Your task to perform on an android device: check google app version Image 0: 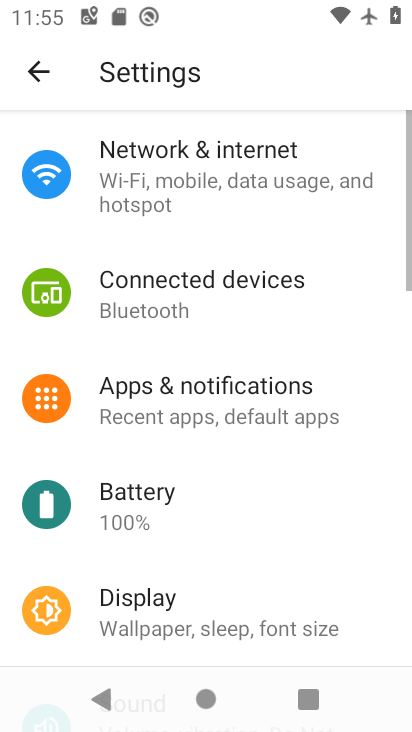
Step 0: press back button
Your task to perform on an android device: check google app version Image 1: 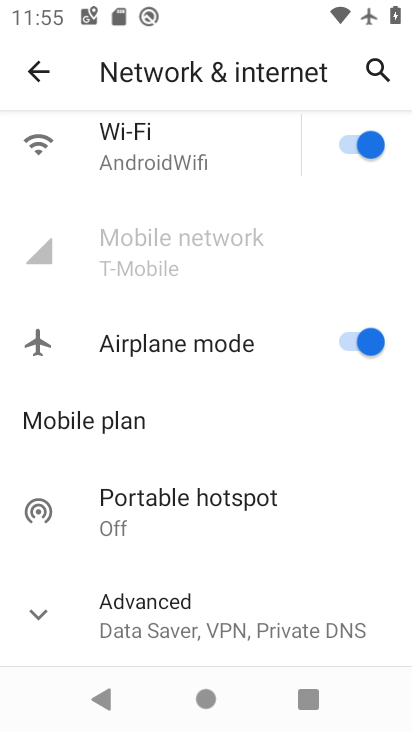
Step 1: click (44, 73)
Your task to perform on an android device: check google app version Image 2: 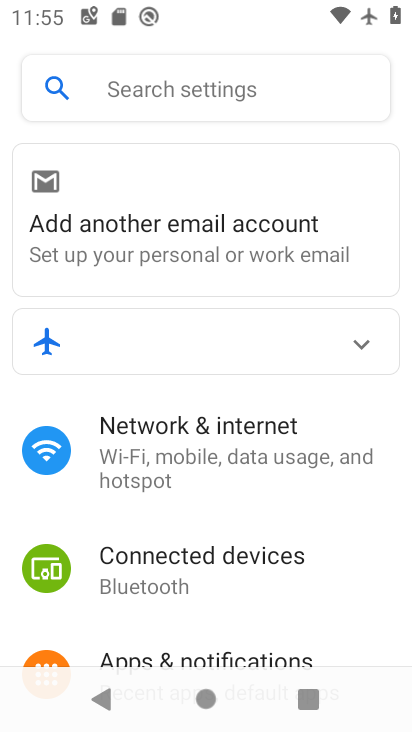
Step 2: press back button
Your task to perform on an android device: check google app version Image 3: 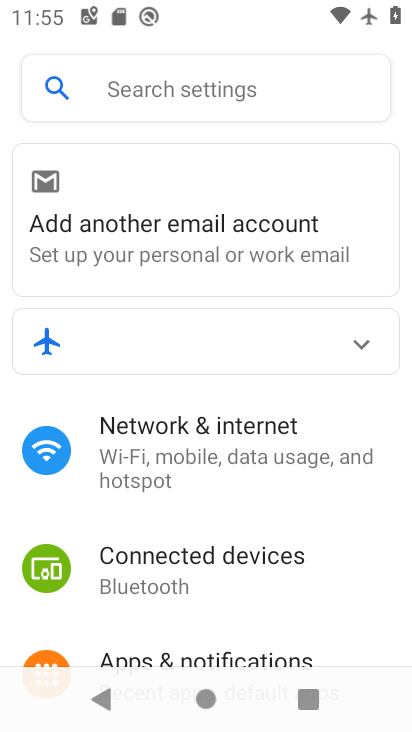
Step 3: press back button
Your task to perform on an android device: check google app version Image 4: 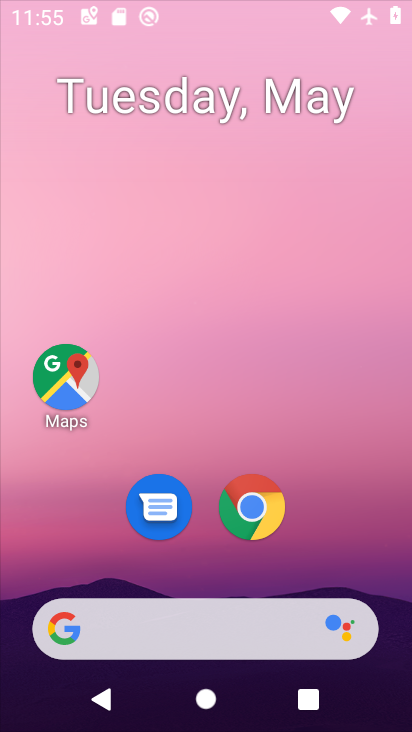
Step 4: press back button
Your task to perform on an android device: check google app version Image 5: 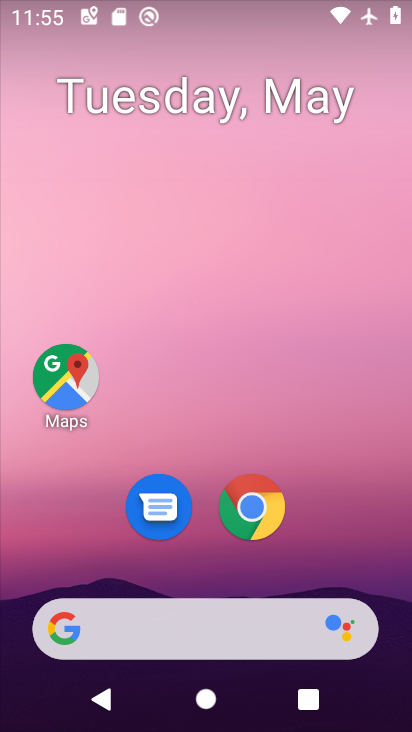
Step 5: drag from (244, 636) to (233, 71)
Your task to perform on an android device: check google app version Image 6: 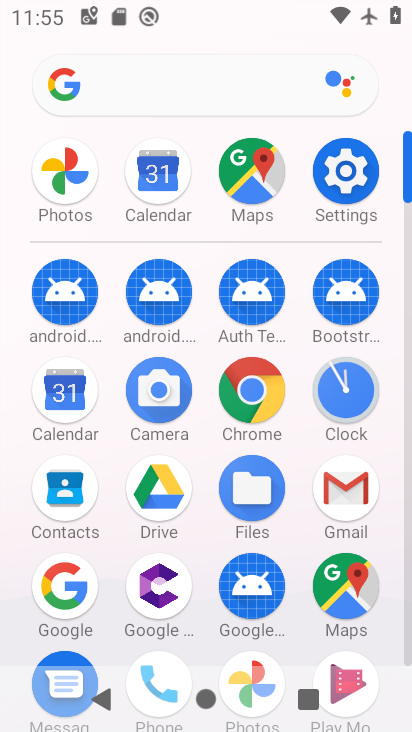
Step 6: click (71, 579)
Your task to perform on an android device: check google app version Image 7: 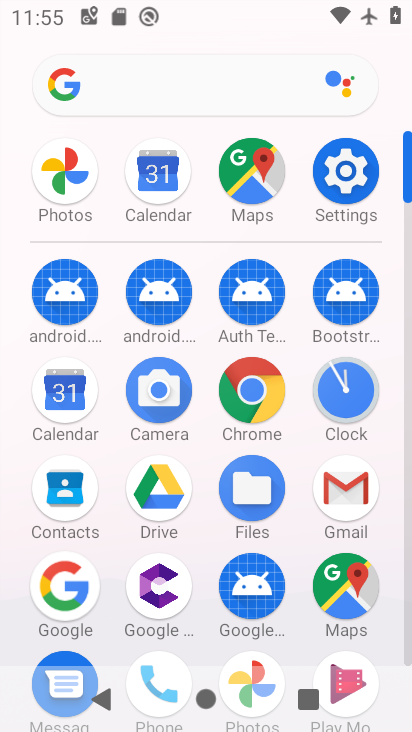
Step 7: click (71, 580)
Your task to perform on an android device: check google app version Image 8: 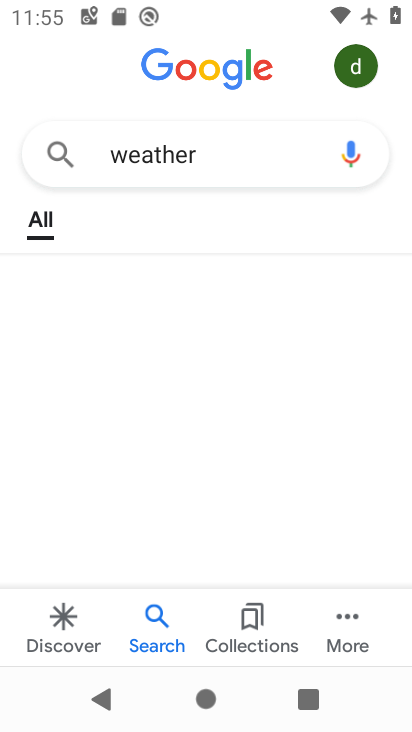
Step 8: click (80, 580)
Your task to perform on an android device: check google app version Image 9: 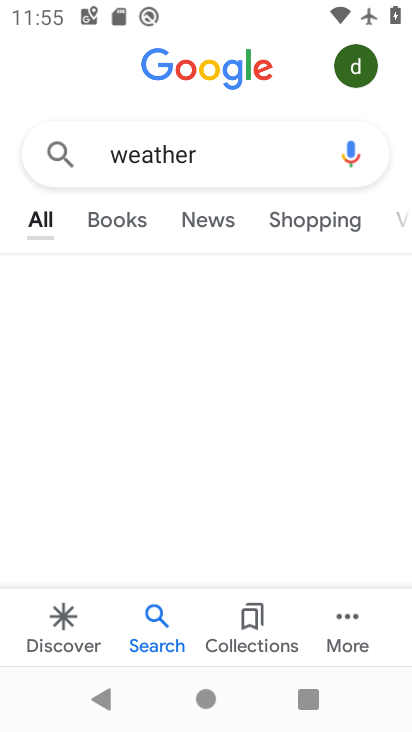
Step 9: press back button
Your task to perform on an android device: check google app version Image 10: 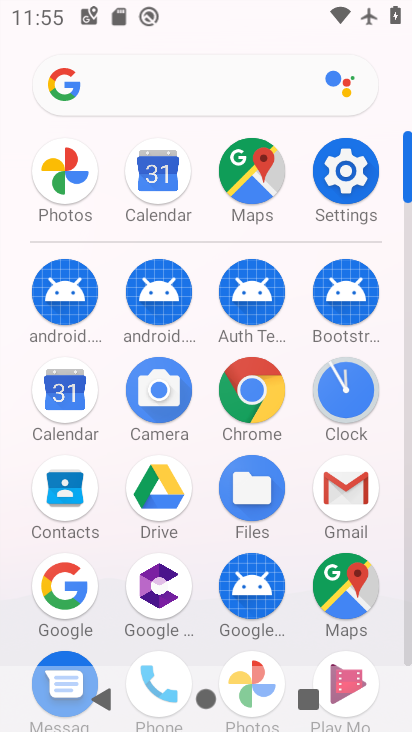
Step 10: click (78, 596)
Your task to perform on an android device: check google app version Image 11: 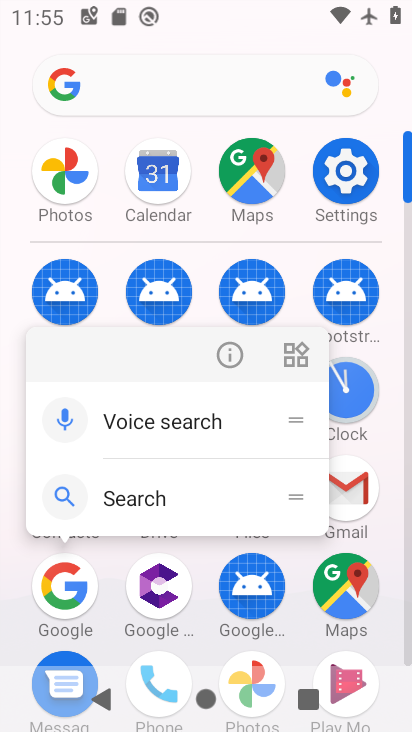
Step 11: click (78, 596)
Your task to perform on an android device: check google app version Image 12: 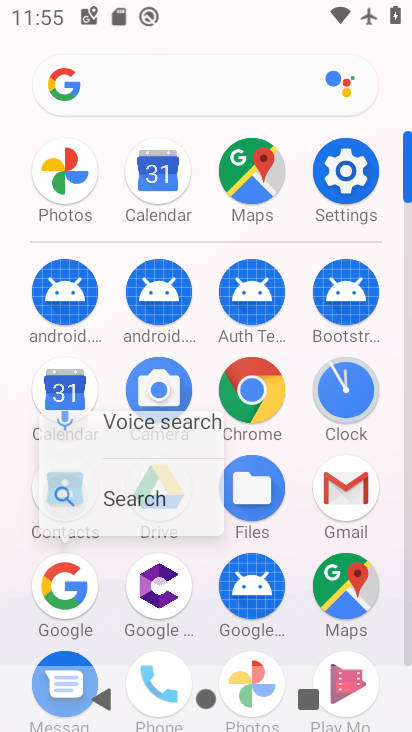
Step 12: click (78, 596)
Your task to perform on an android device: check google app version Image 13: 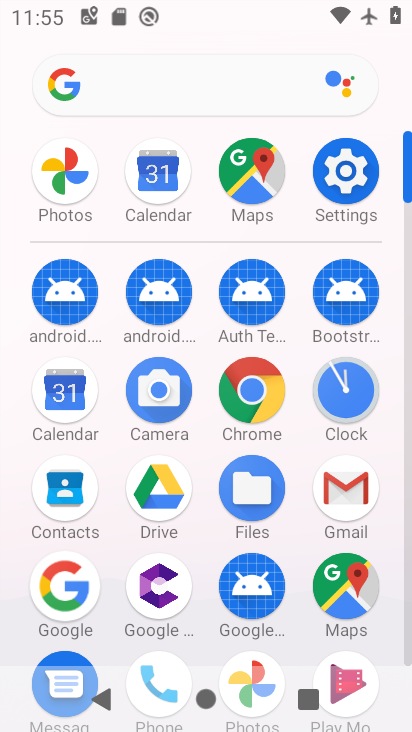
Step 13: click (78, 596)
Your task to perform on an android device: check google app version Image 14: 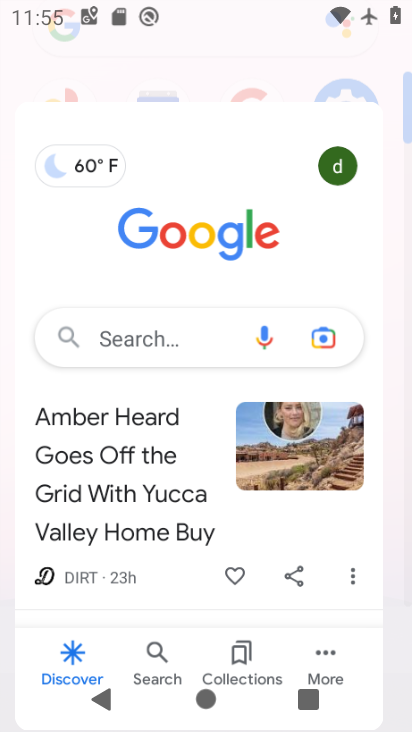
Step 14: click (78, 596)
Your task to perform on an android device: check google app version Image 15: 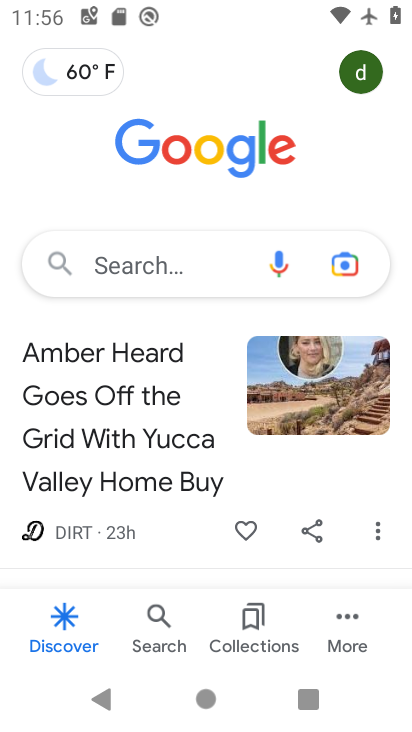
Step 15: click (346, 623)
Your task to perform on an android device: check google app version Image 16: 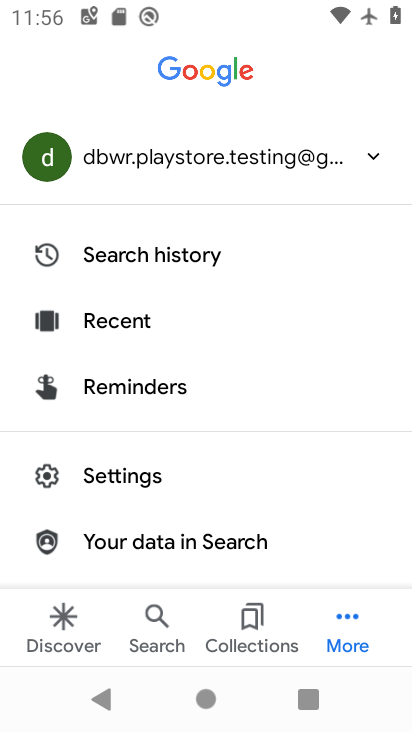
Step 16: drag from (246, 435) to (256, 109)
Your task to perform on an android device: check google app version Image 17: 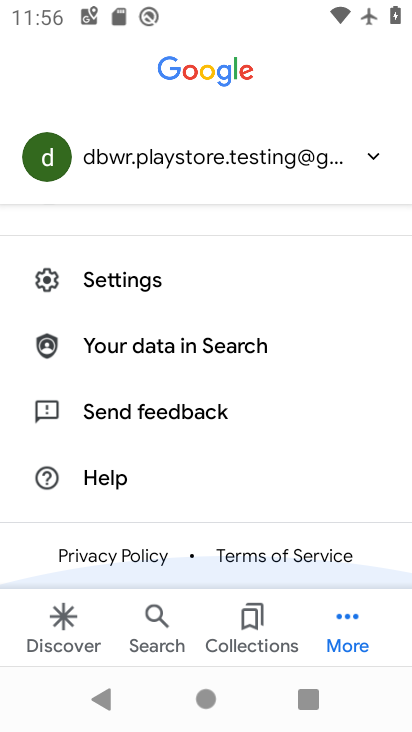
Step 17: drag from (247, 354) to (247, 81)
Your task to perform on an android device: check google app version Image 18: 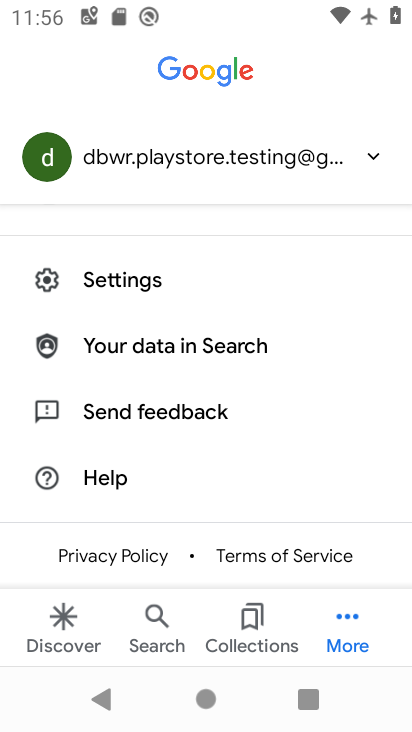
Step 18: drag from (217, 365) to (217, 200)
Your task to perform on an android device: check google app version Image 19: 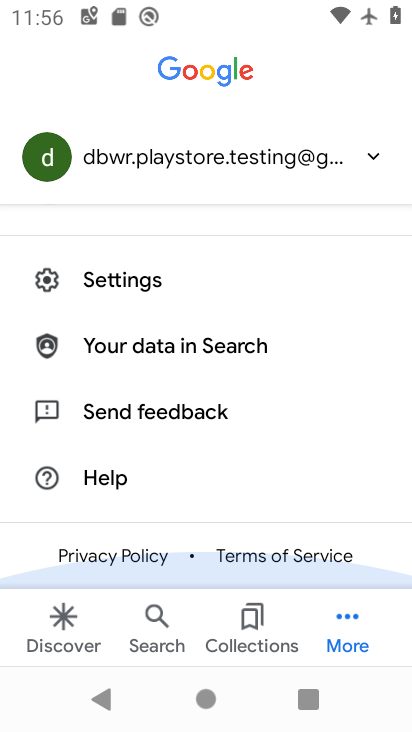
Step 19: drag from (248, 378) to (248, 203)
Your task to perform on an android device: check google app version Image 20: 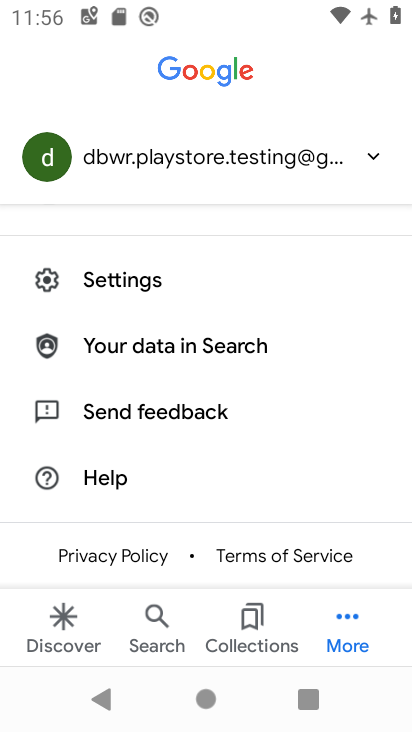
Step 20: click (123, 279)
Your task to perform on an android device: check google app version Image 21: 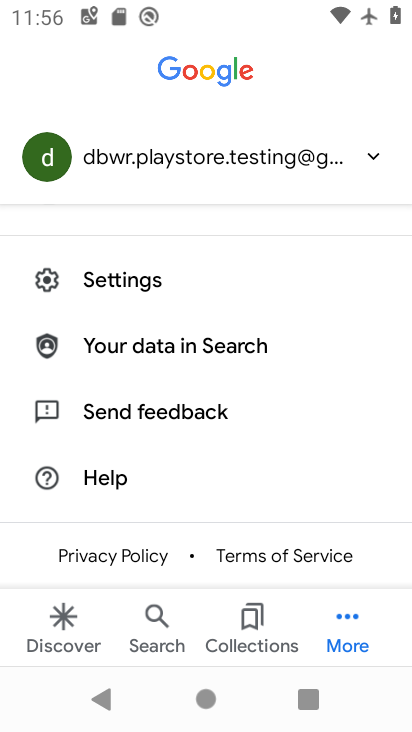
Step 21: click (124, 278)
Your task to perform on an android device: check google app version Image 22: 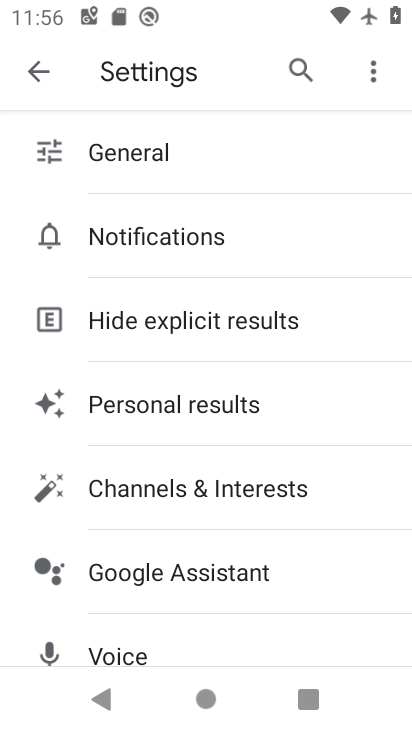
Step 22: drag from (192, 386) to (198, 9)
Your task to perform on an android device: check google app version Image 23: 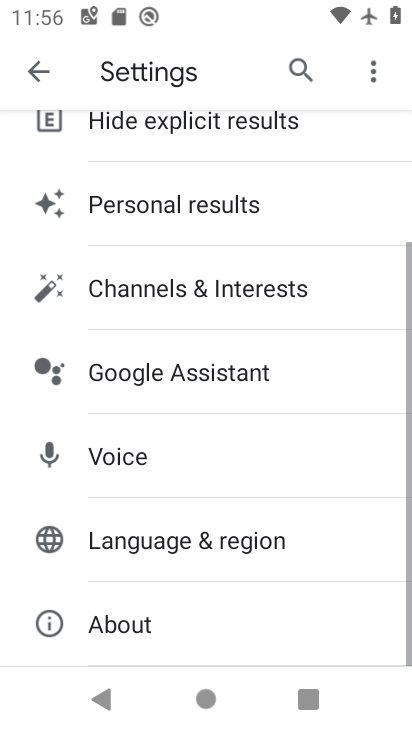
Step 23: drag from (246, 245) to (250, 42)
Your task to perform on an android device: check google app version Image 24: 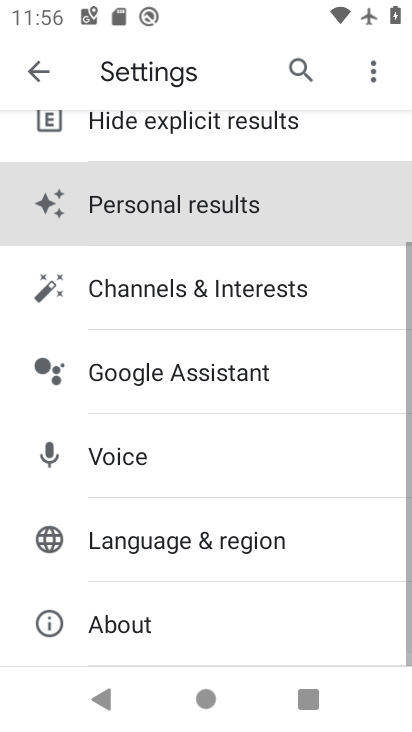
Step 24: drag from (265, 438) to (295, 174)
Your task to perform on an android device: check google app version Image 25: 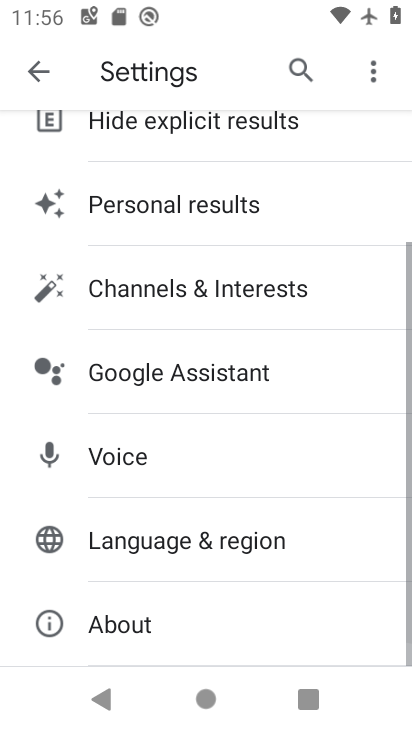
Step 25: drag from (246, 458) to (244, 151)
Your task to perform on an android device: check google app version Image 26: 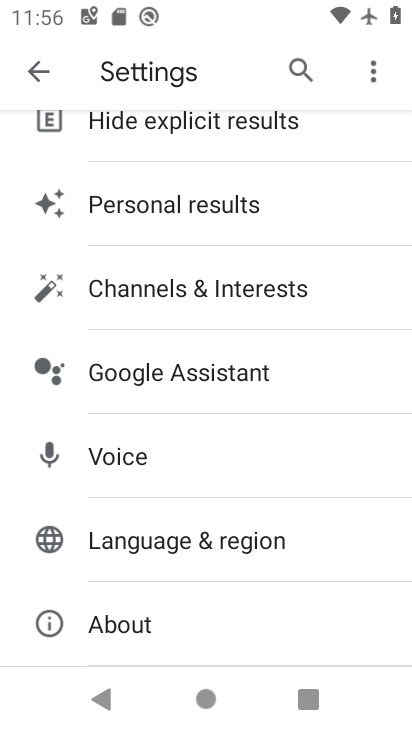
Step 26: click (126, 628)
Your task to perform on an android device: check google app version Image 27: 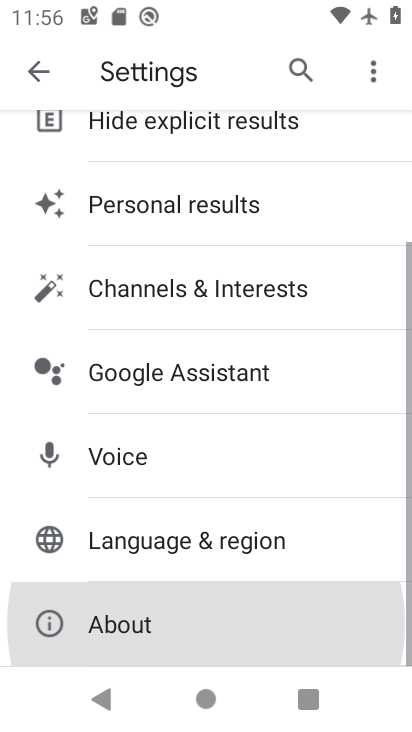
Step 27: click (133, 616)
Your task to perform on an android device: check google app version Image 28: 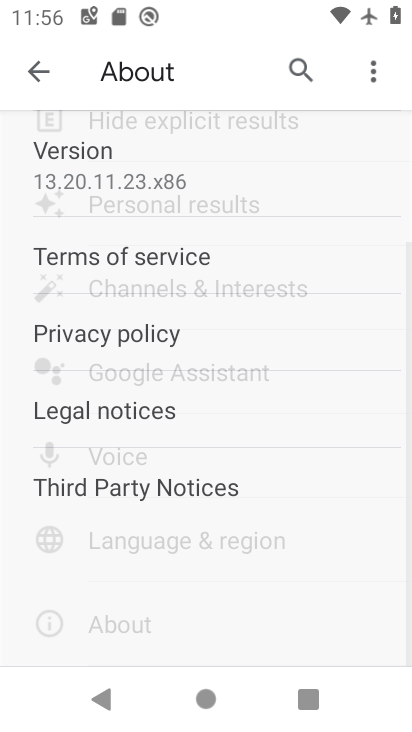
Step 28: click (136, 614)
Your task to perform on an android device: check google app version Image 29: 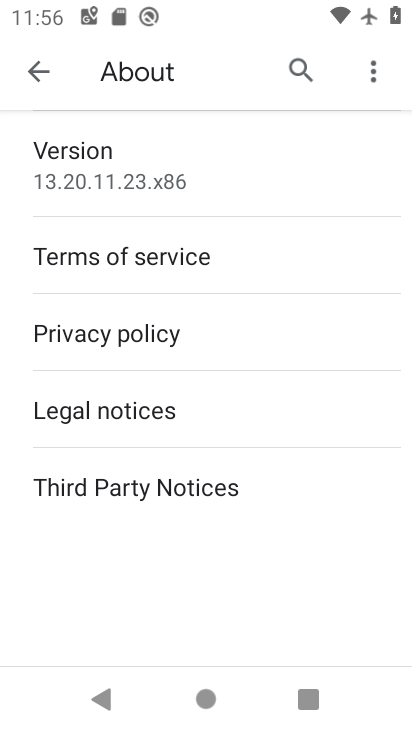
Step 29: click (101, 168)
Your task to perform on an android device: check google app version Image 30: 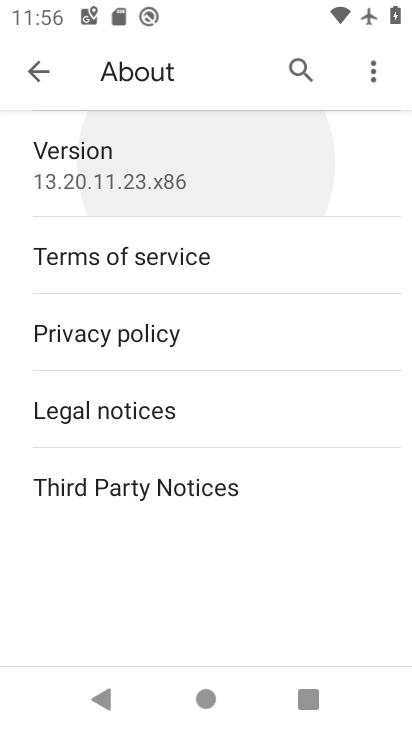
Step 30: click (101, 168)
Your task to perform on an android device: check google app version Image 31: 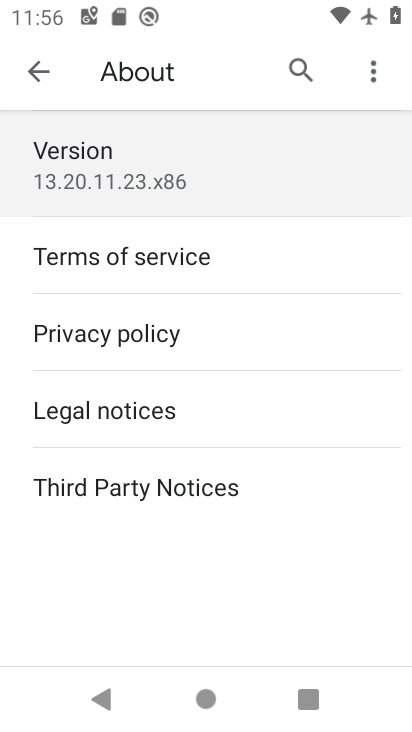
Step 31: click (104, 169)
Your task to perform on an android device: check google app version Image 32: 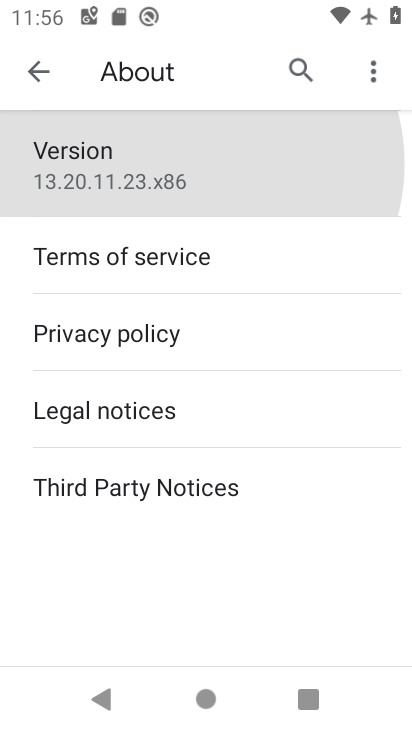
Step 32: click (104, 169)
Your task to perform on an android device: check google app version Image 33: 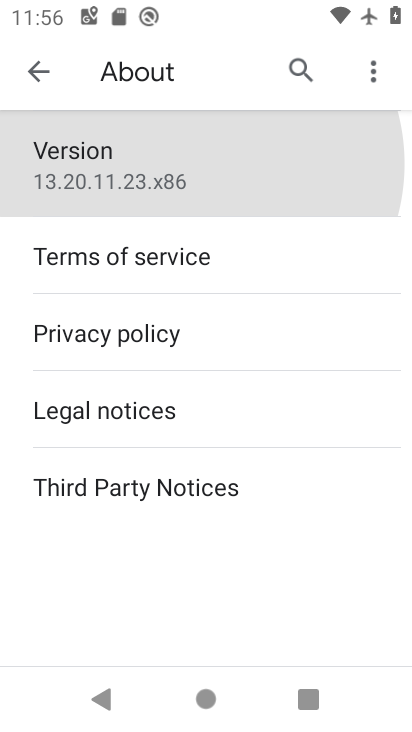
Step 33: click (104, 169)
Your task to perform on an android device: check google app version Image 34: 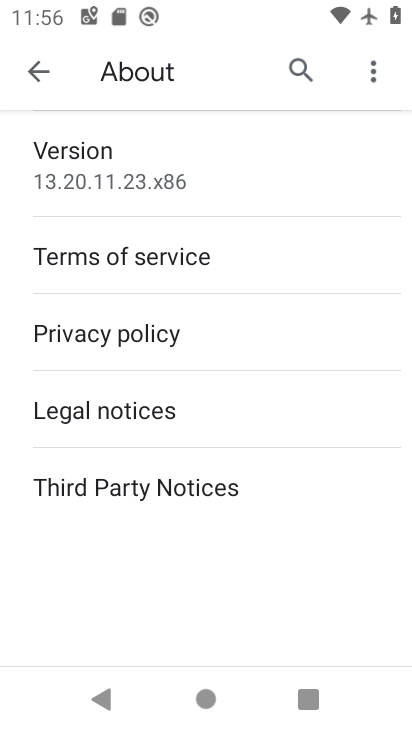
Step 34: task complete